Your task to perform on an android device: turn on location history Image 0: 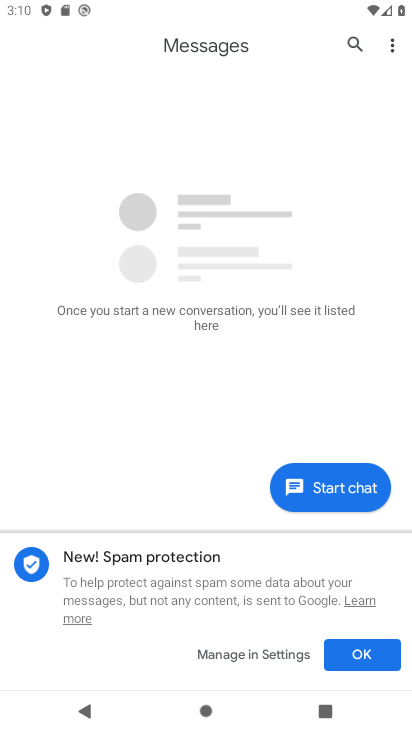
Step 0: press home button
Your task to perform on an android device: turn on location history Image 1: 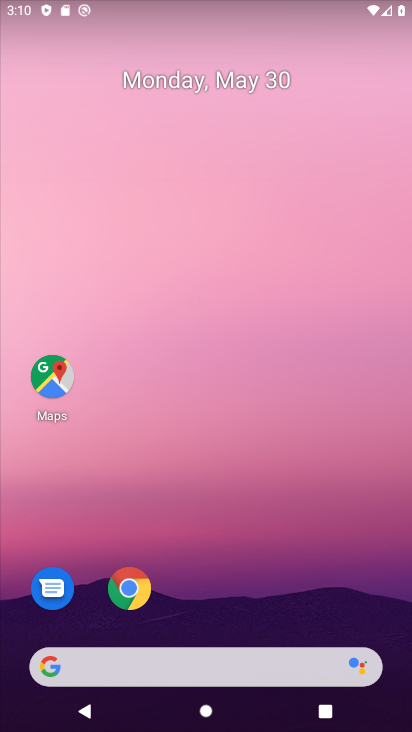
Step 1: click (48, 373)
Your task to perform on an android device: turn on location history Image 2: 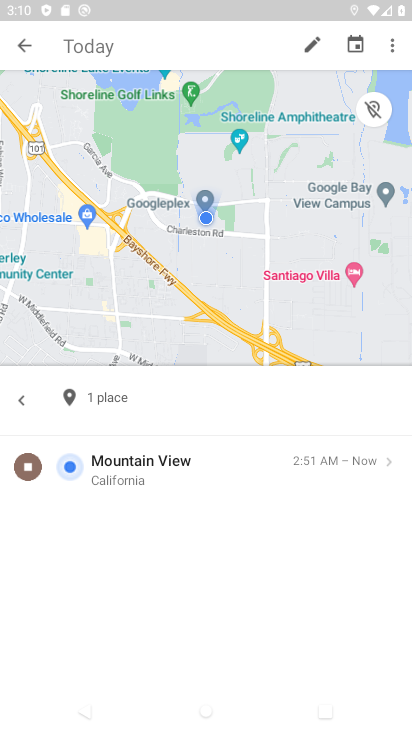
Step 2: press back button
Your task to perform on an android device: turn on location history Image 3: 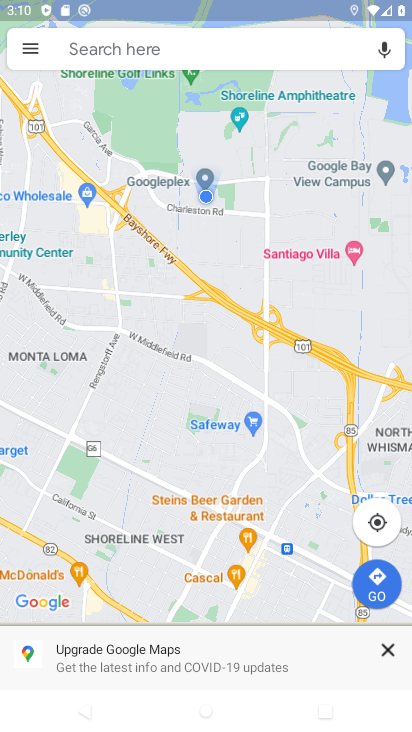
Step 3: click (23, 52)
Your task to perform on an android device: turn on location history Image 4: 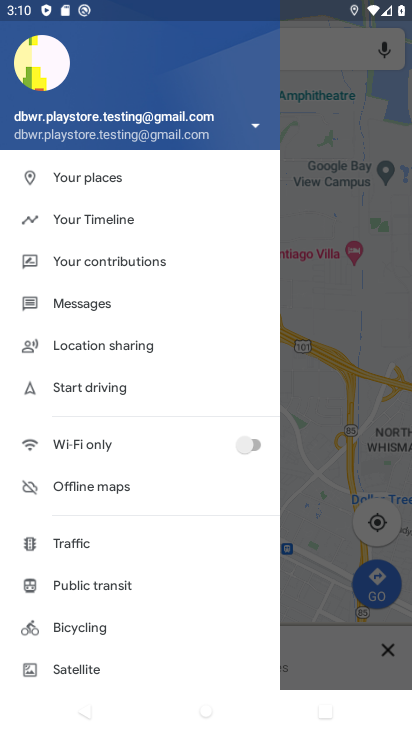
Step 4: drag from (159, 602) to (175, 260)
Your task to perform on an android device: turn on location history Image 5: 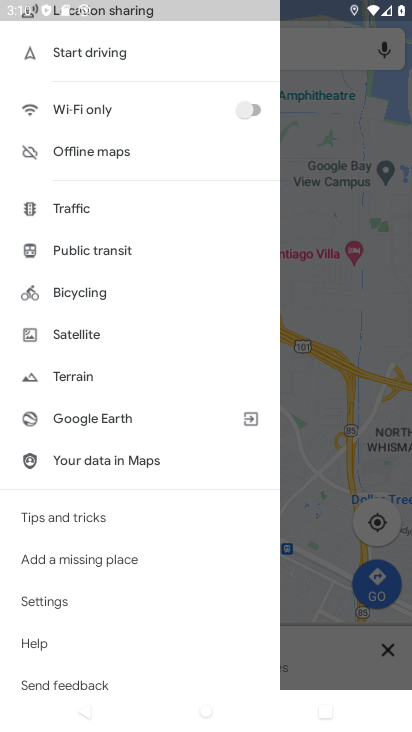
Step 5: click (39, 594)
Your task to perform on an android device: turn on location history Image 6: 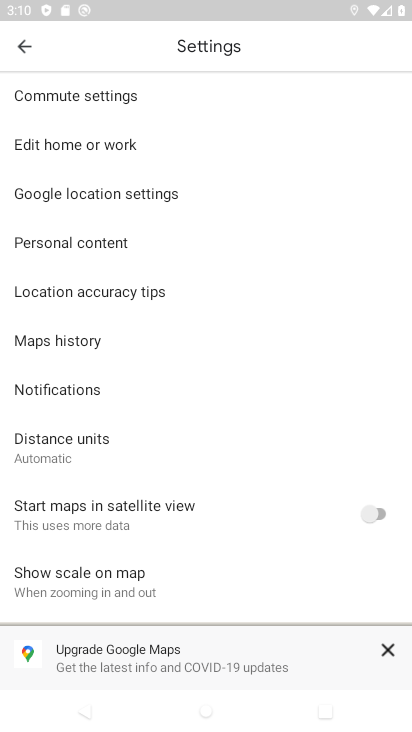
Step 6: click (65, 243)
Your task to perform on an android device: turn on location history Image 7: 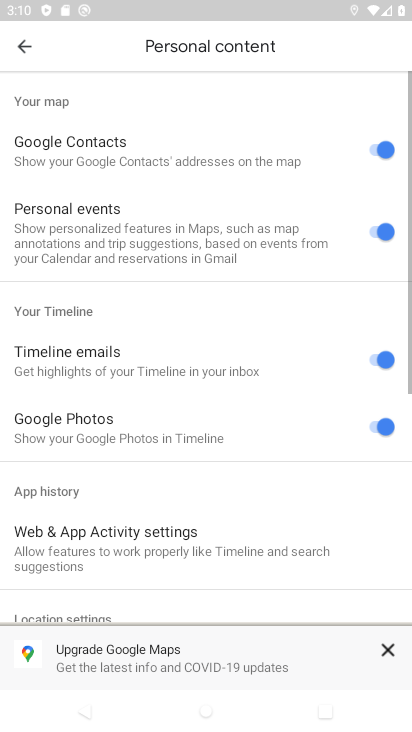
Step 7: drag from (324, 554) to (286, 202)
Your task to perform on an android device: turn on location history Image 8: 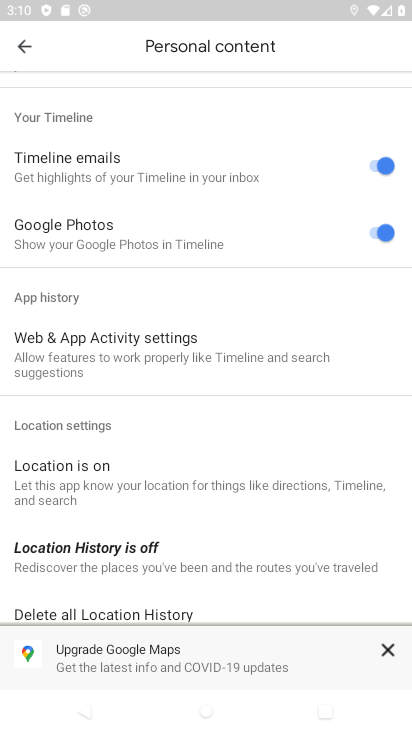
Step 8: drag from (277, 550) to (282, 313)
Your task to perform on an android device: turn on location history Image 9: 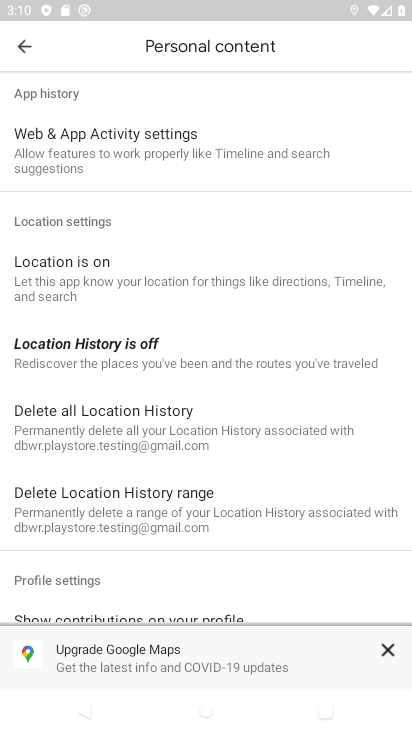
Step 9: click (20, 339)
Your task to perform on an android device: turn on location history Image 10: 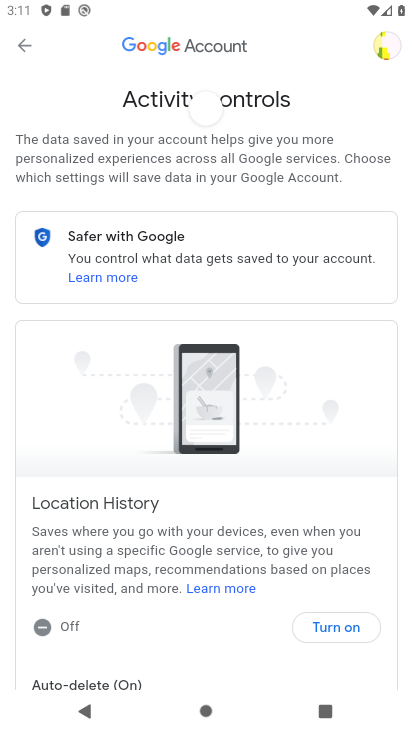
Step 10: click (337, 630)
Your task to perform on an android device: turn on location history Image 11: 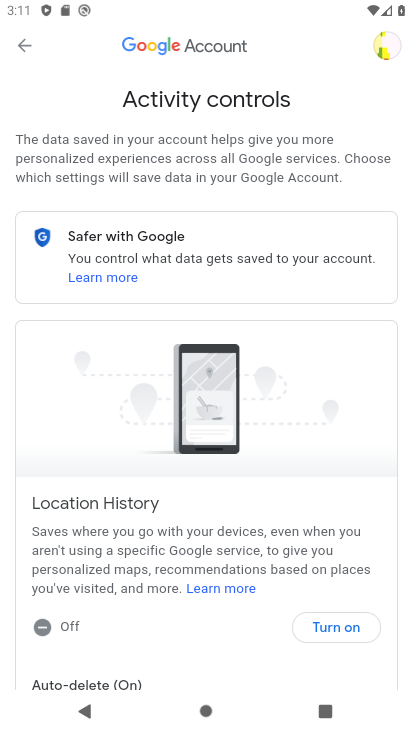
Step 11: click (337, 630)
Your task to perform on an android device: turn on location history Image 12: 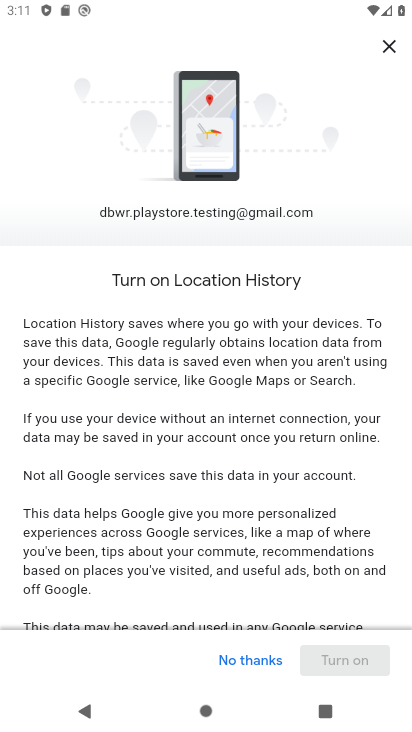
Step 12: drag from (309, 538) to (242, 45)
Your task to perform on an android device: turn on location history Image 13: 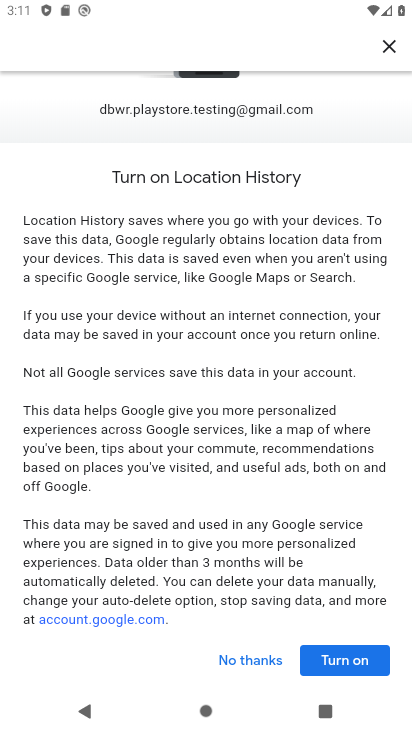
Step 13: click (346, 658)
Your task to perform on an android device: turn on location history Image 14: 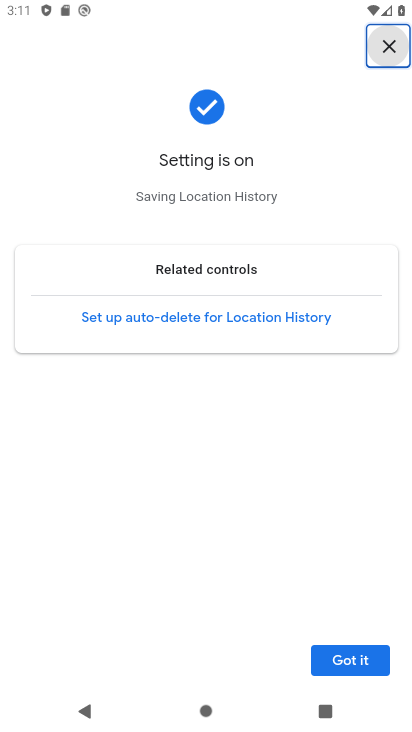
Step 14: click (365, 653)
Your task to perform on an android device: turn on location history Image 15: 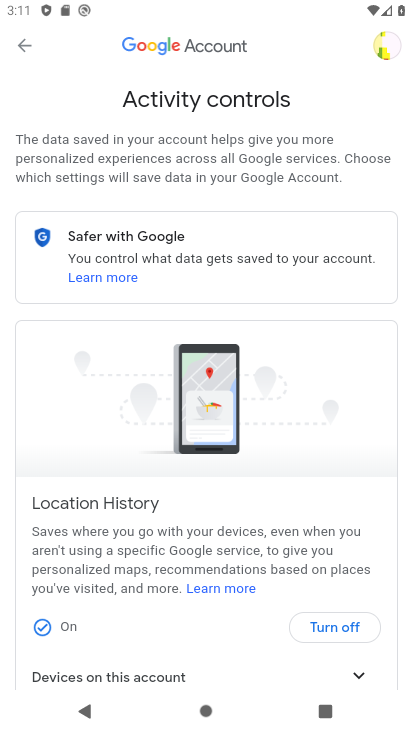
Step 15: task complete